Your task to perform on an android device: toggle javascript in the chrome app Image 0: 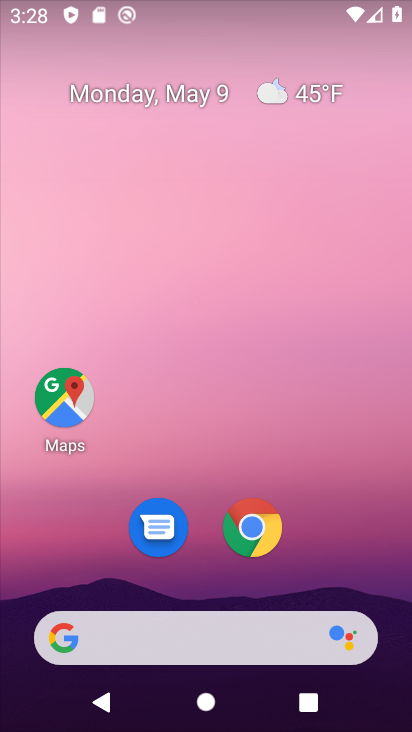
Step 0: drag from (368, 553) to (286, 242)
Your task to perform on an android device: toggle javascript in the chrome app Image 1: 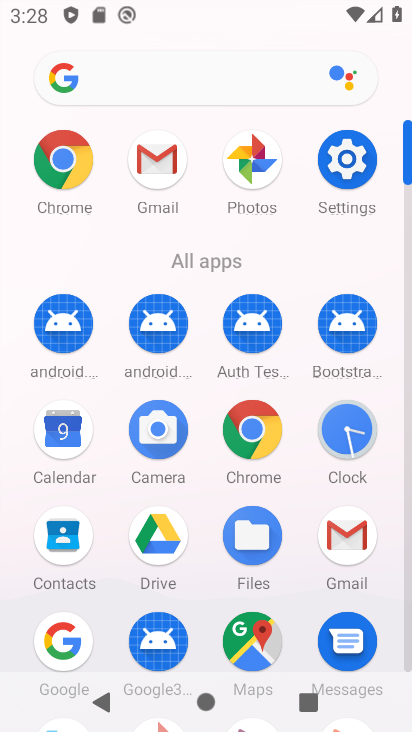
Step 1: click (74, 172)
Your task to perform on an android device: toggle javascript in the chrome app Image 2: 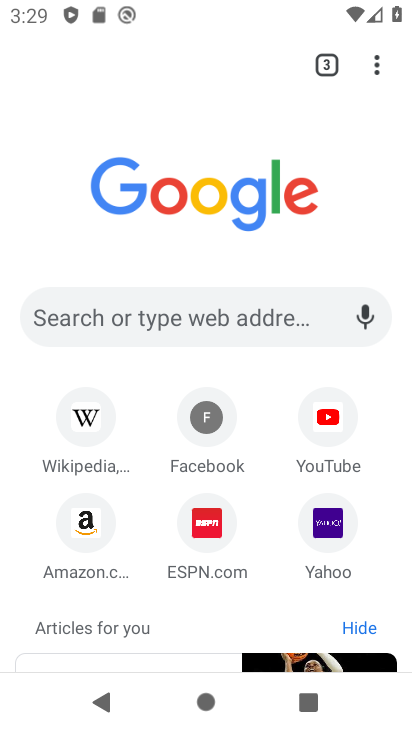
Step 2: click (371, 89)
Your task to perform on an android device: toggle javascript in the chrome app Image 3: 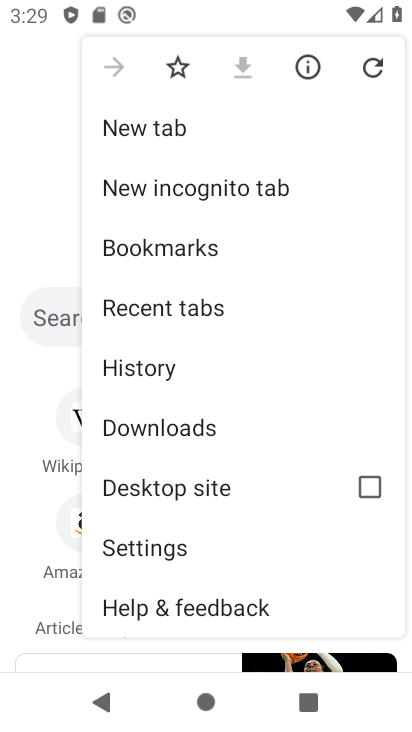
Step 3: click (225, 554)
Your task to perform on an android device: toggle javascript in the chrome app Image 4: 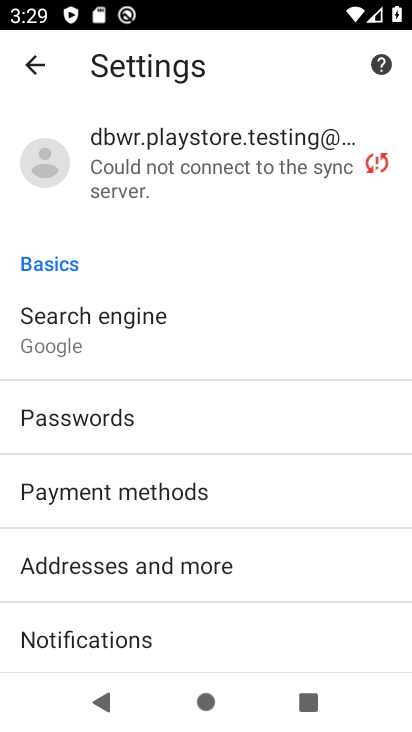
Step 4: drag from (246, 610) to (346, 195)
Your task to perform on an android device: toggle javascript in the chrome app Image 5: 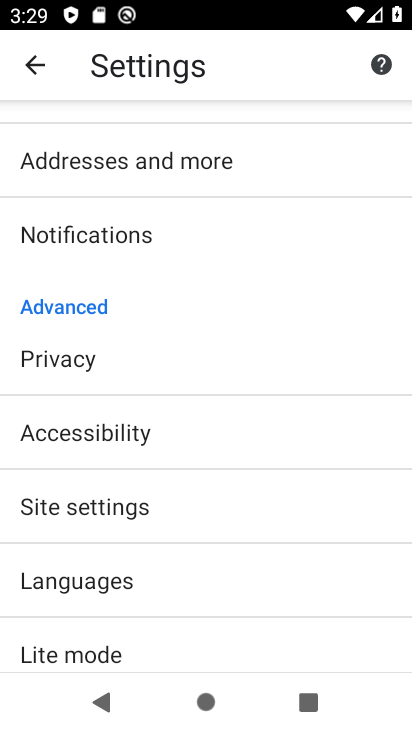
Step 5: click (273, 494)
Your task to perform on an android device: toggle javascript in the chrome app Image 6: 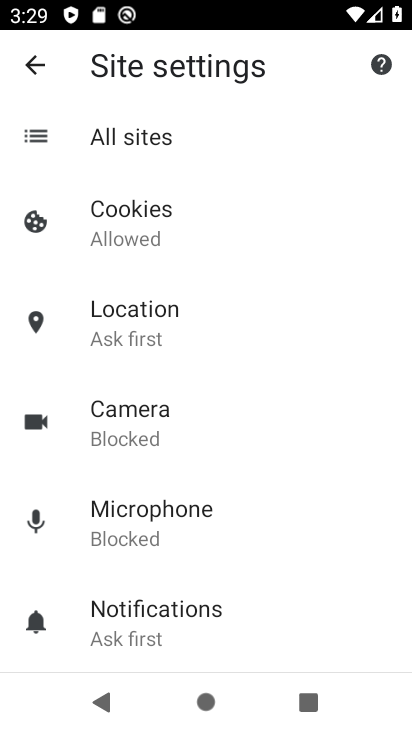
Step 6: drag from (315, 647) to (308, 297)
Your task to perform on an android device: toggle javascript in the chrome app Image 7: 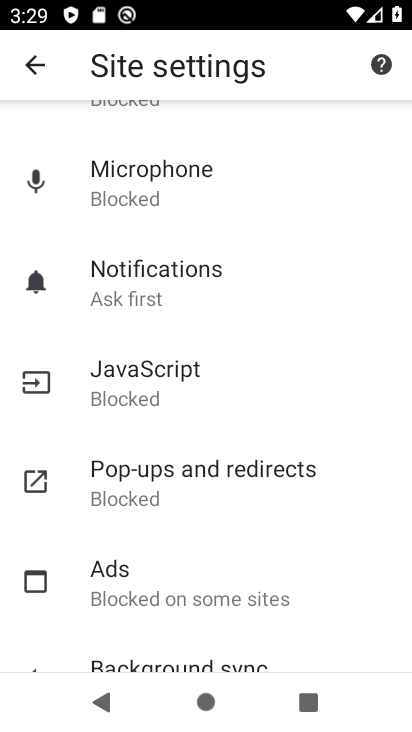
Step 7: drag from (341, 595) to (330, 462)
Your task to perform on an android device: toggle javascript in the chrome app Image 8: 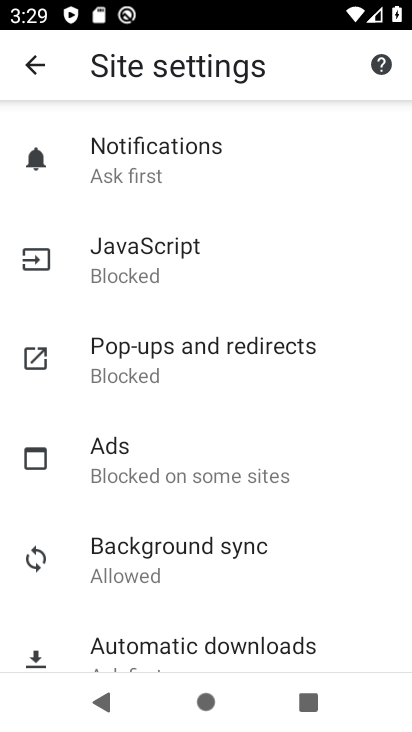
Step 8: click (256, 262)
Your task to perform on an android device: toggle javascript in the chrome app Image 9: 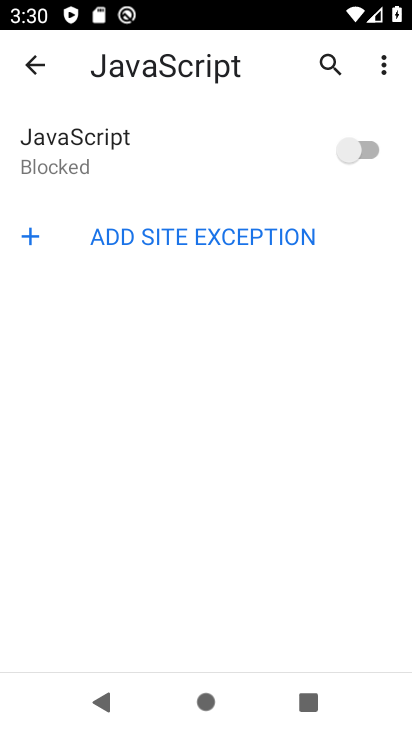
Step 9: click (372, 165)
Your task to perform on an android device: toggle javascript in the chrome app Image 10: 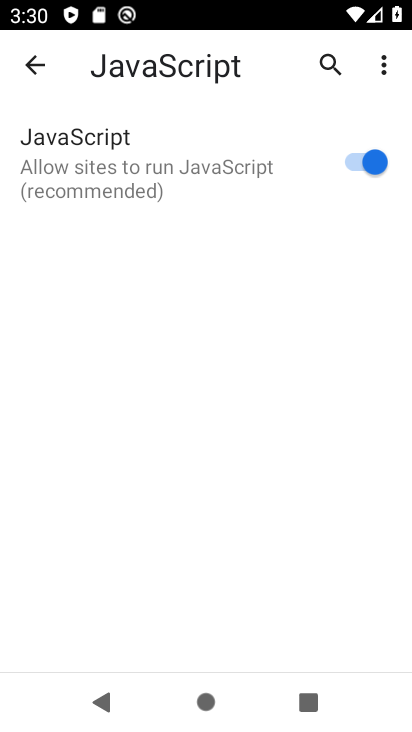
Step 10: task complete